Your task to perform on an android device: turn on translation in the chrome app Image 0: 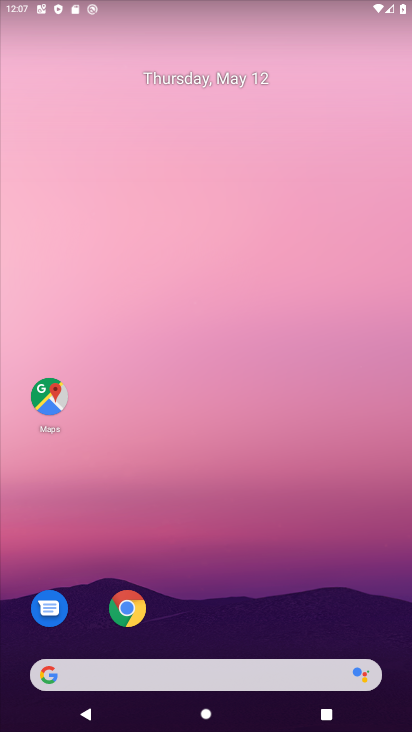
Step 0: click (123, 609)
Your task to perform on an android device: turn on translation in the chrome app Image 1: 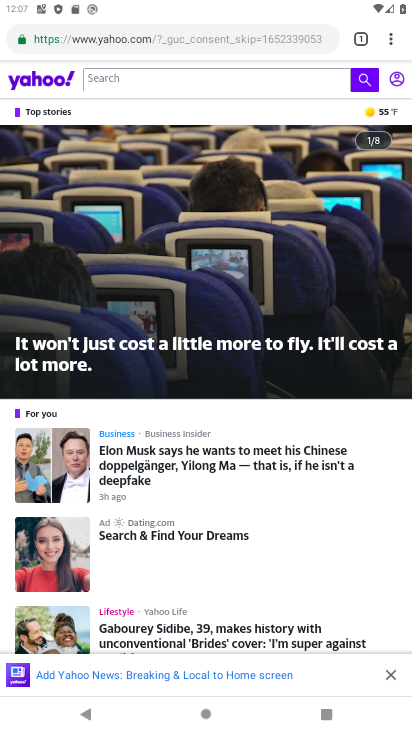
Step 1: click (390, 47)
Your task to perform on an android device: turn on translation in the chrome app Image 2: 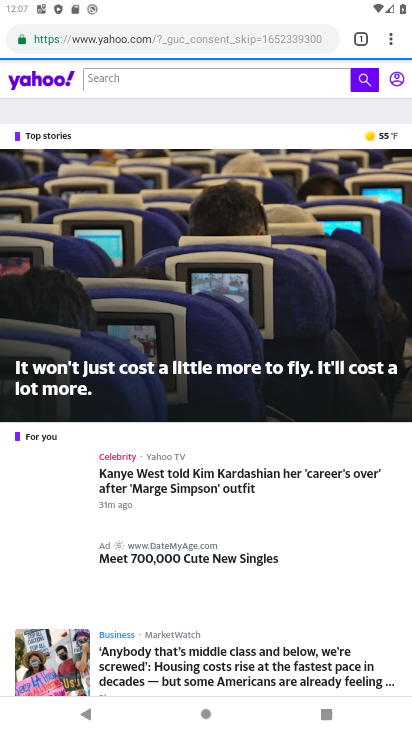
Step 2: drag from (390, 47) to (265, 468)
Your task to perform on an android device: turn on translation in the chrome app Image 3: 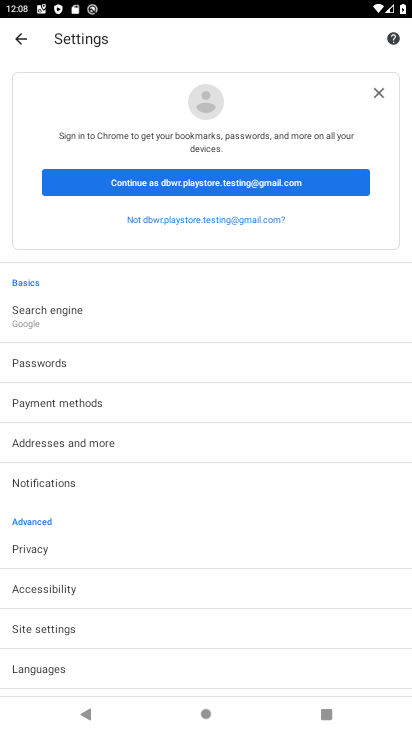
Step 3: click (100, 274)
Your task to perform on an android device: turn on translation in the chrome app Image 4: 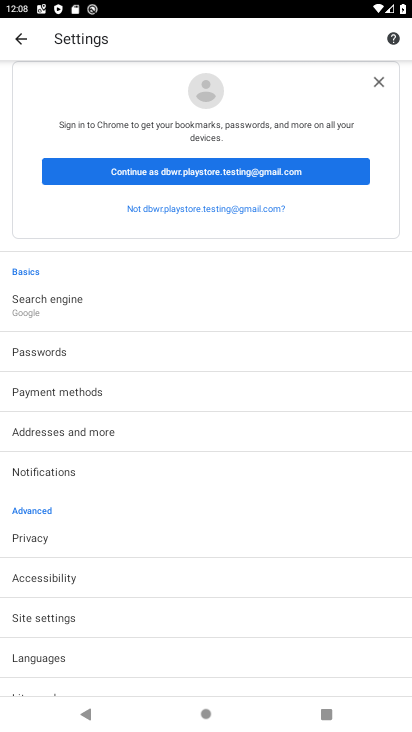
Step 4: click (54, 655)
Your task to perform on an android device: turn on translation in the chrome app Image 5: 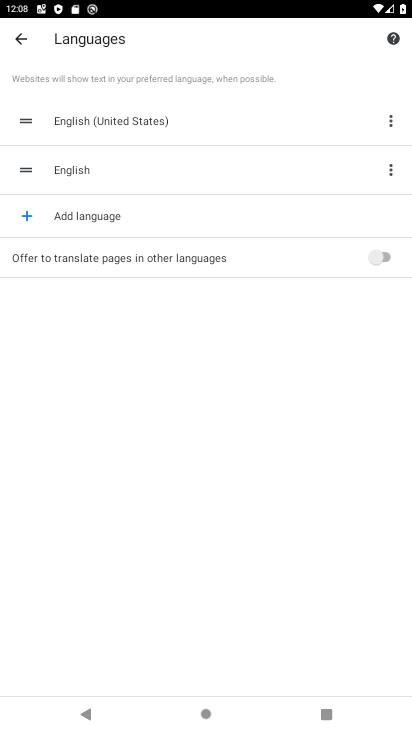
Step 5: click (383, 257)
Your task to perform on an android device: turn on translation in the chrome app Image 6: 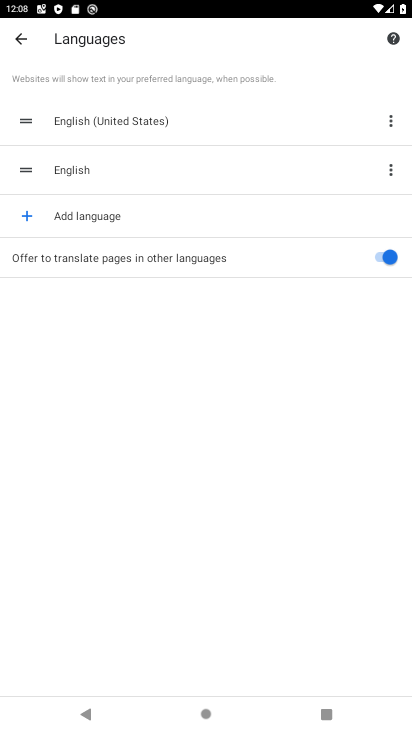
Step 6: task complete